Your task to perform on an android device: open chrome and create a bookmark for the current page Image 0: 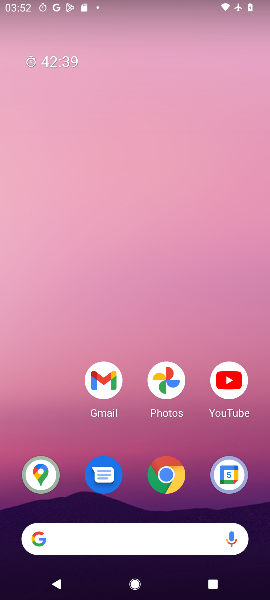
Step 0: drag from (59, 432) to (58, 182)
Your task to perform on an android device: open chrome and create a bookmark for the current page Image 1: 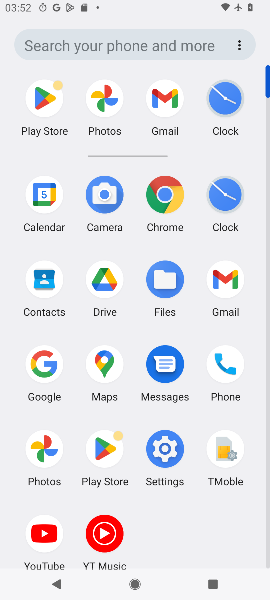
Step 1: click (168, 198)
Your task to perform on an android device: open chrome and create a bookmark for the current page Image 2: 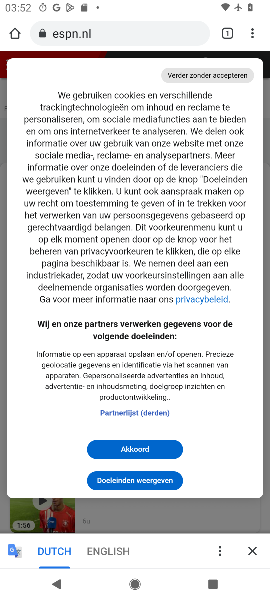
Step 2: click (252, 38)
Your task to perform on an android device: open chrome and create a bookmark for the current page Image 3: 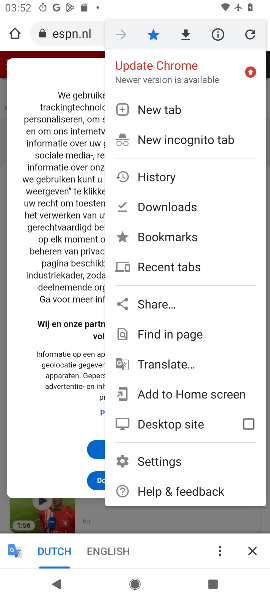
Step 3: task complete